Your task to perform on an android device: change alarm snooze length Image 0: 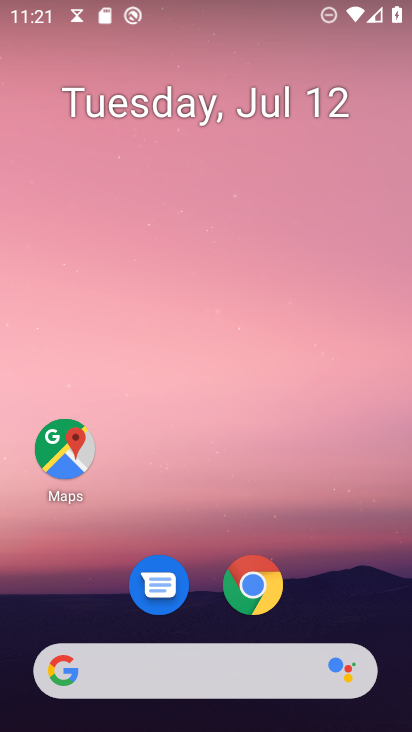
Step 0: drag from (206, 669) to (356, 146)
Your task to perform on an android device: change alarm snooze length Image 1: 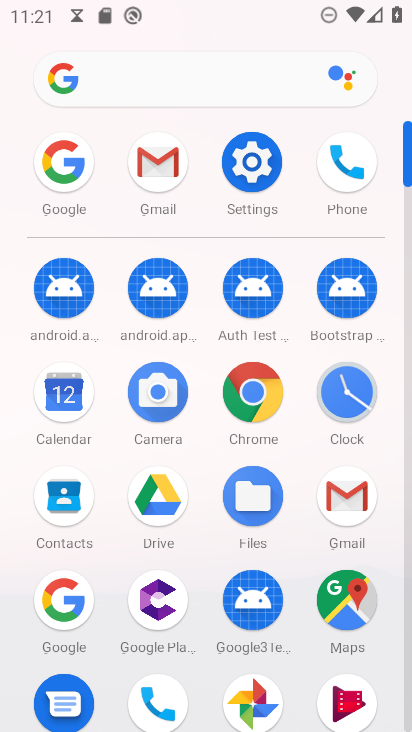
Step 1: click (349, 399)
Your task to perform on an android device: change alarm snooze length Image 2: 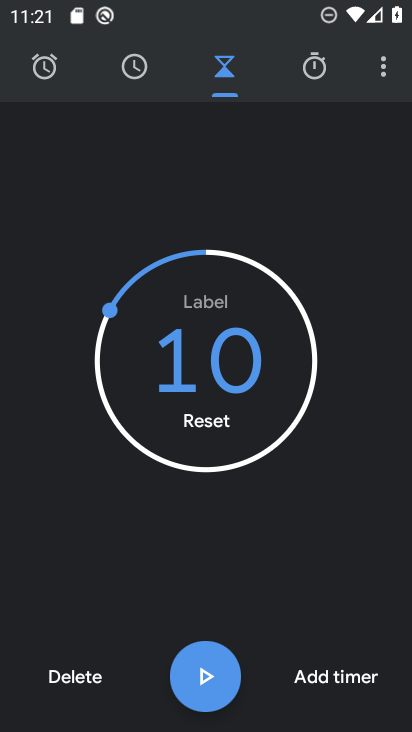
Step 2: click (380, 67)
Your task to perform on an android device: change alarm snooze length Image 3: 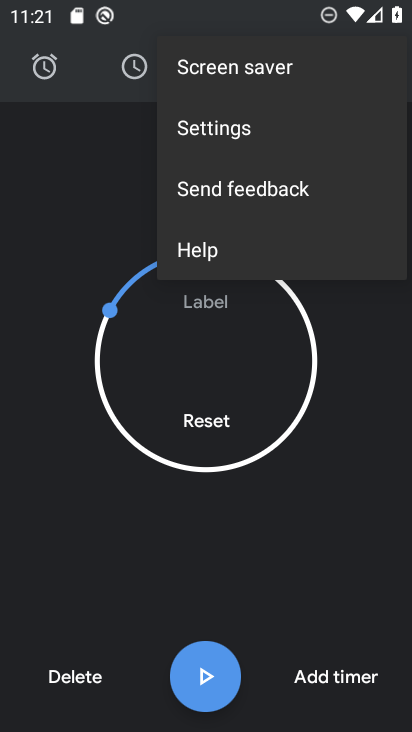
Step 3: click (270, 132)
Your task to perform on an android device: change alarm snooze length Image 4: 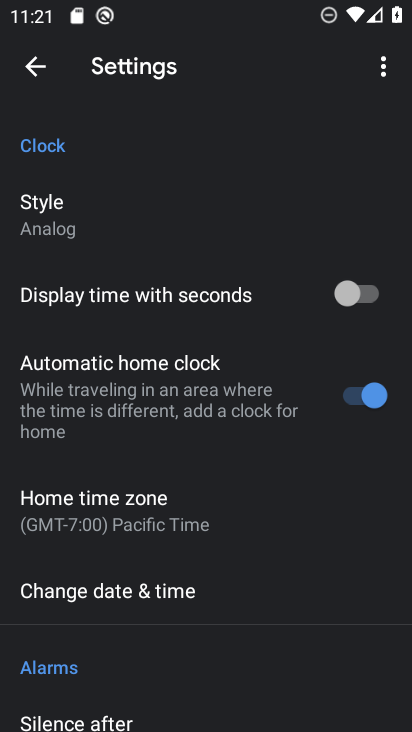
Step 4: drag from (235, 586) to (322, 130)
Your task to perform on an android device: change alarm snooze length Image 5: 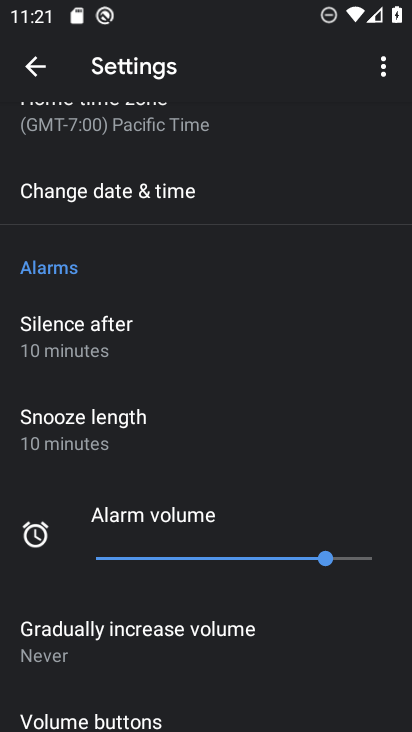
Step 5: click (119, 430)
Your task to perform on an android device: change alarm snooze length Image 6: 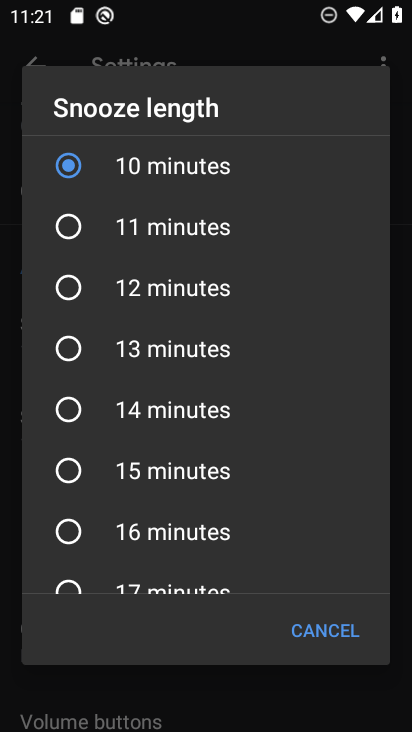
Step 6: click (63, 470)
Your task to perform on an android device: change alarm snooze length Image 7: 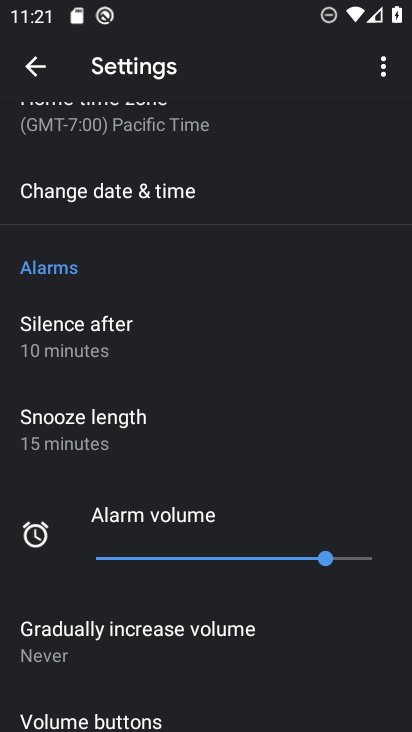
Step 7: task complete